Your task to perform on an android device: toggle improve location accuracy Image 0: 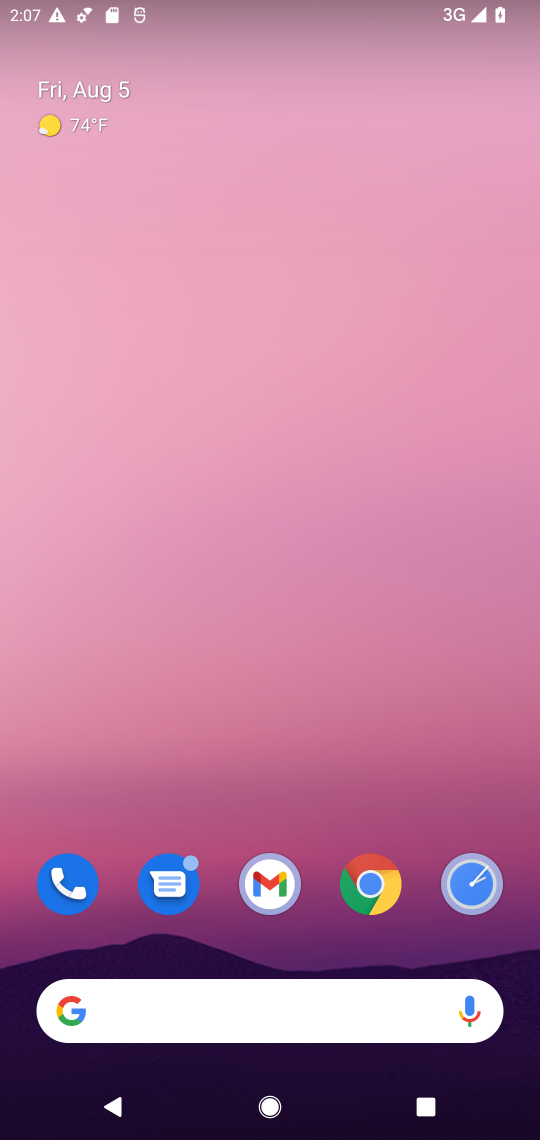
Step 0: drag from (430, 951) to (314, 43)
Your task to perform on an android device: toggle improve location accuracy Image 1: 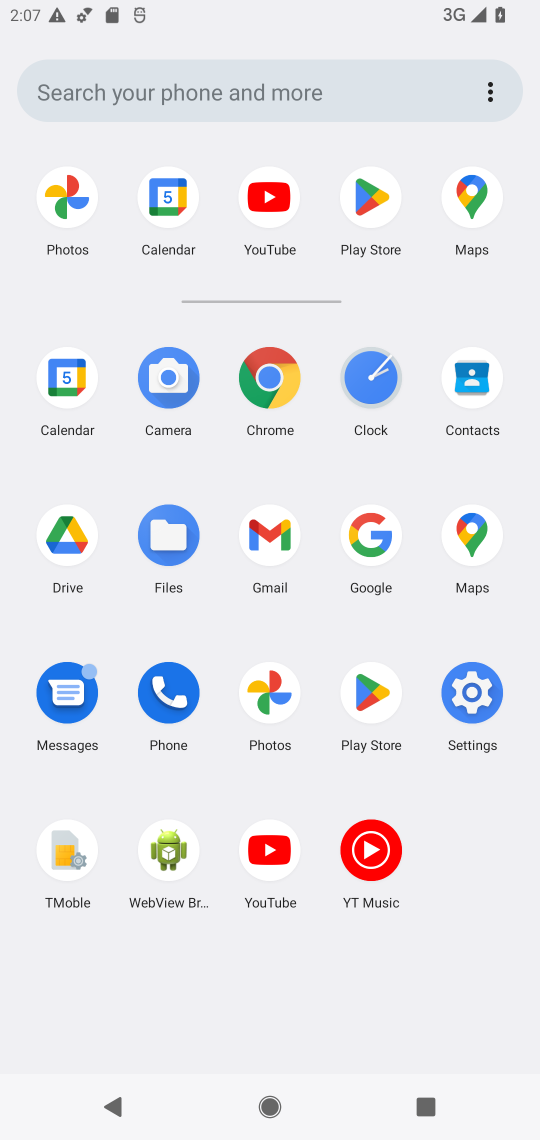
Step 1: click (489, 710)
Your task to perform on an android device: toggle improve location accuracy Image 2: 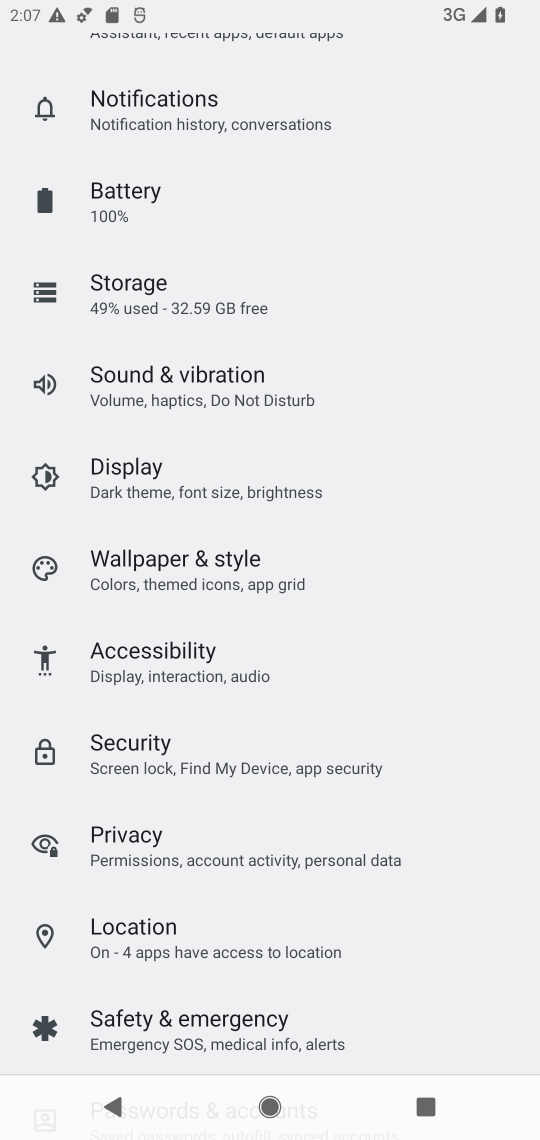
Step 2: click (156, 928)
Your task to perform on an android device: toggle improve location accuracy Image 3: 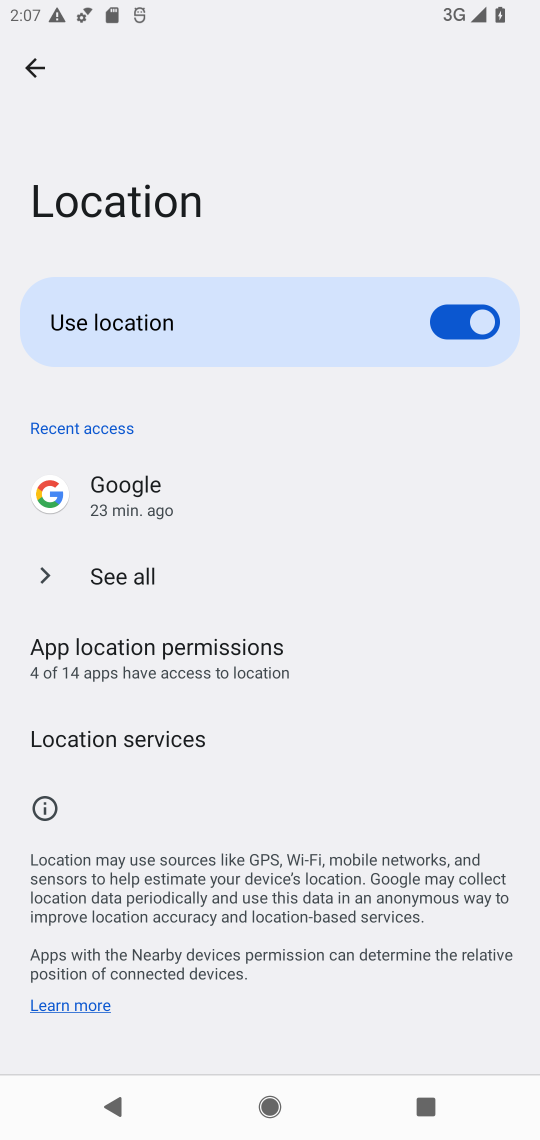
Step 3: click (154, 736)
Your task to perform on an android device: toggle improve location accuracy Image 4: 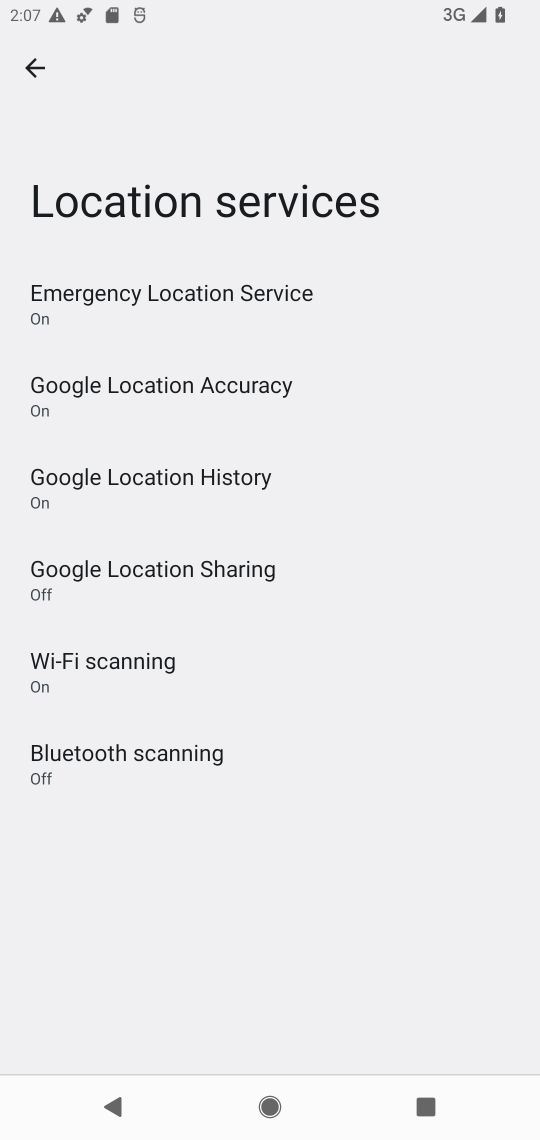
Step 4: click (239, 402)
Your task to perform on an android device: toggle improve location accuracy Image 5: 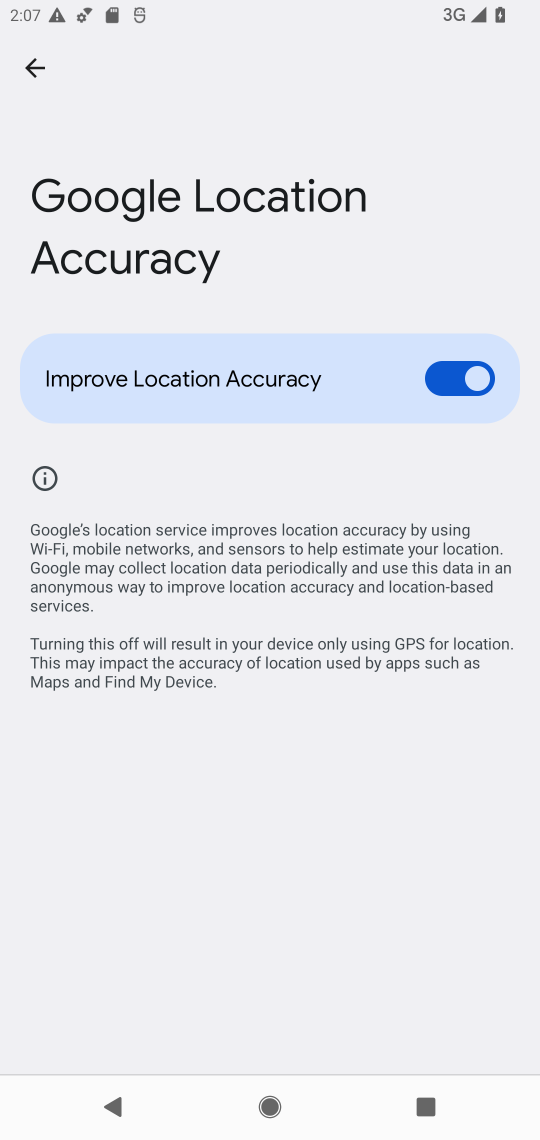
Step 5: click (471, 355)
Your task to perform on an android device: toggle improve location accuracy Image 6: 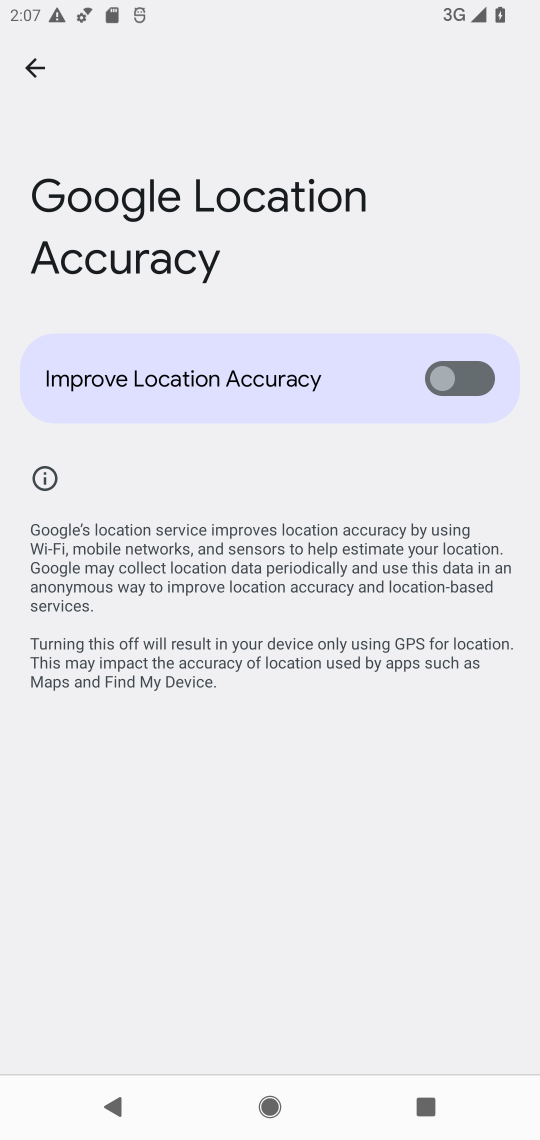
Step 6: task complete